Your task to perform on an android device: turn on airplane mode Image 0: 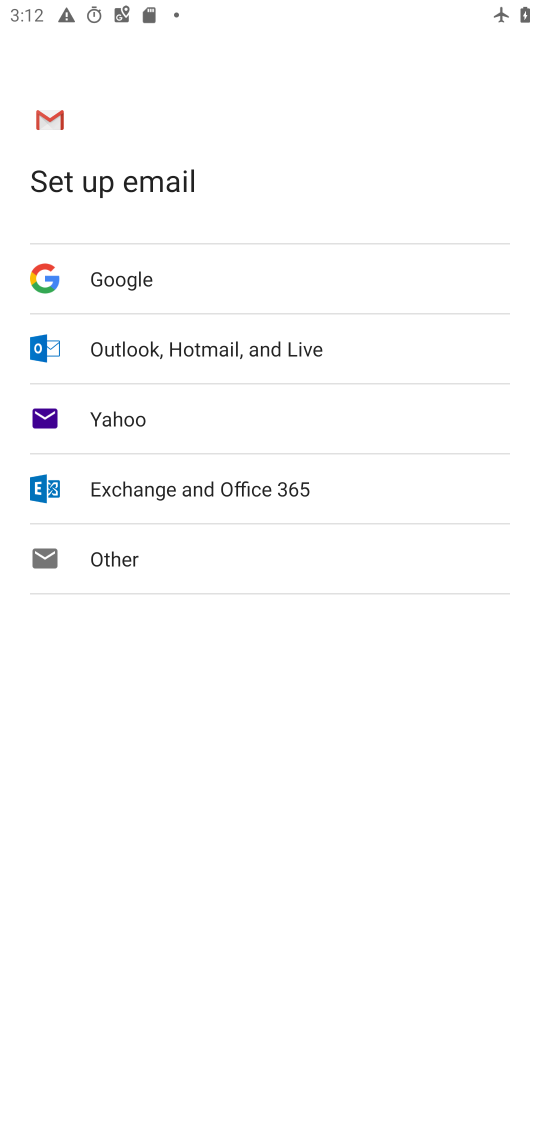
Step 0: press home button
Your task to perform on an android device: turn on airplane mode Image 1: 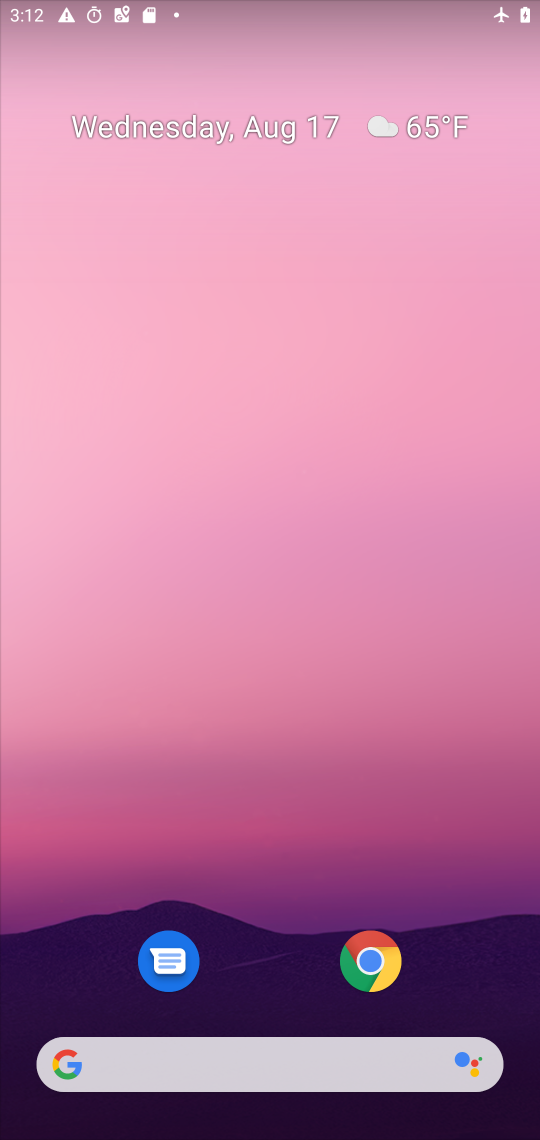
Step 1: click (530, 62)
Your task to perform on an android device: turn on airplane mode Image 2: 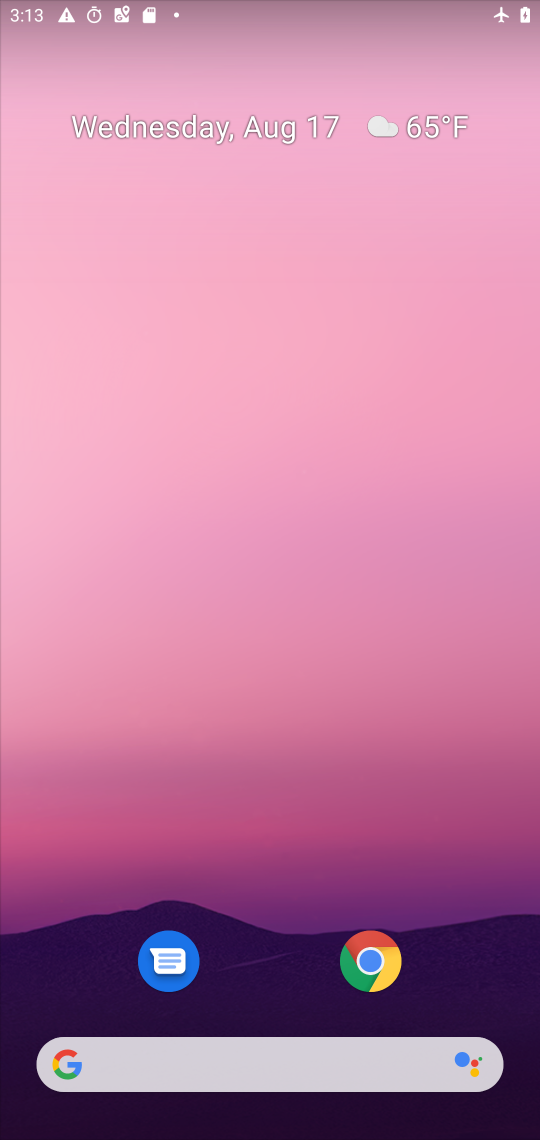
Step 2: drag from (269, 643) to (472, 224)
Your task to perform on an android device: turn on airplane mode Image 3: 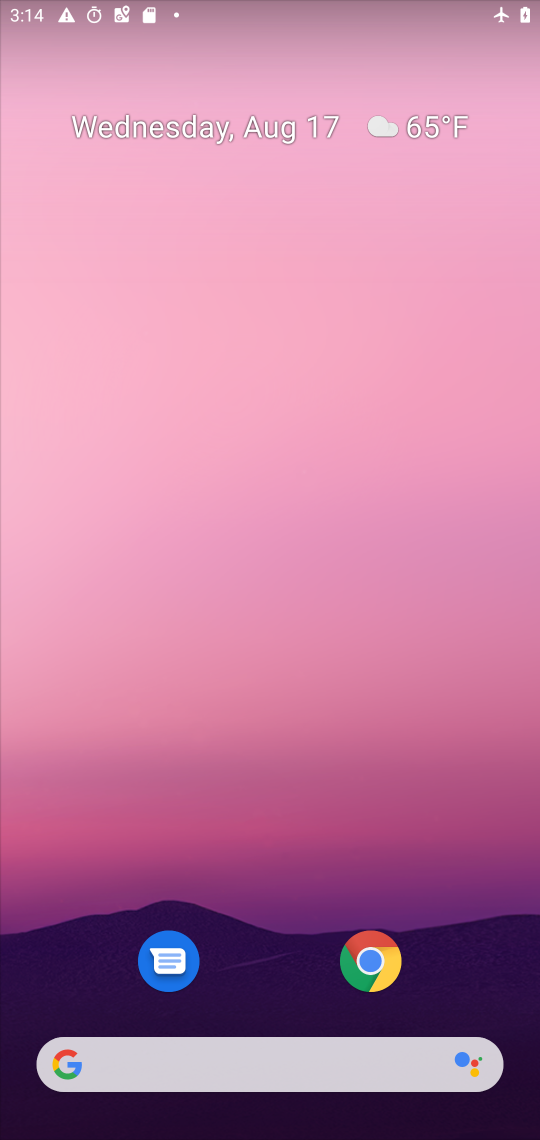
Step 3: drag from (325, 762) to (325, 94)
Your task to perform on an android device: turn on airplane mode Image 4: 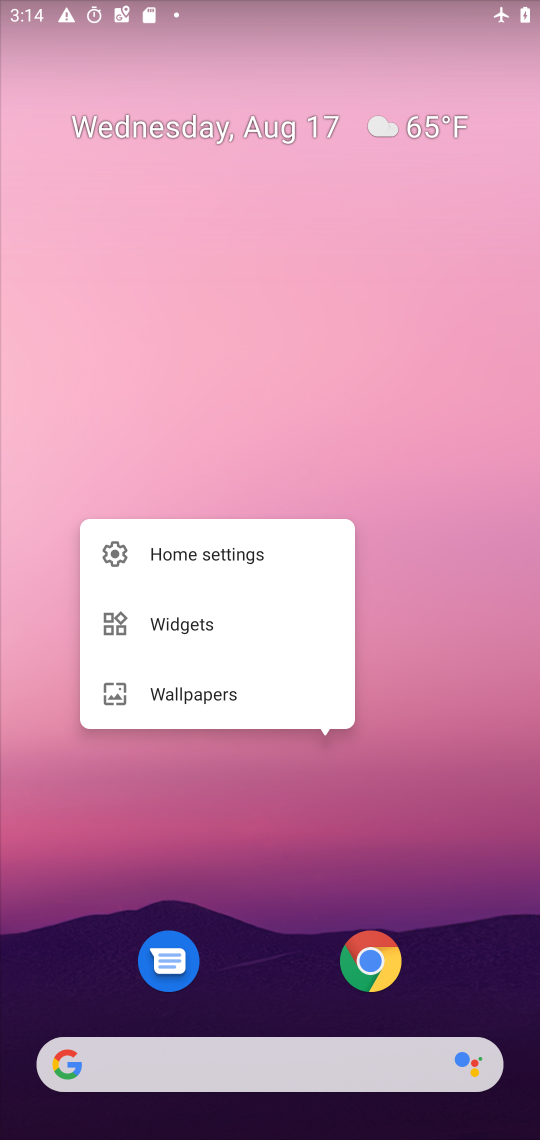
Step 4: drag from (347, 1014) to (349, 55)
Your task to perform on an android device: turn on airplane mode Image 5: 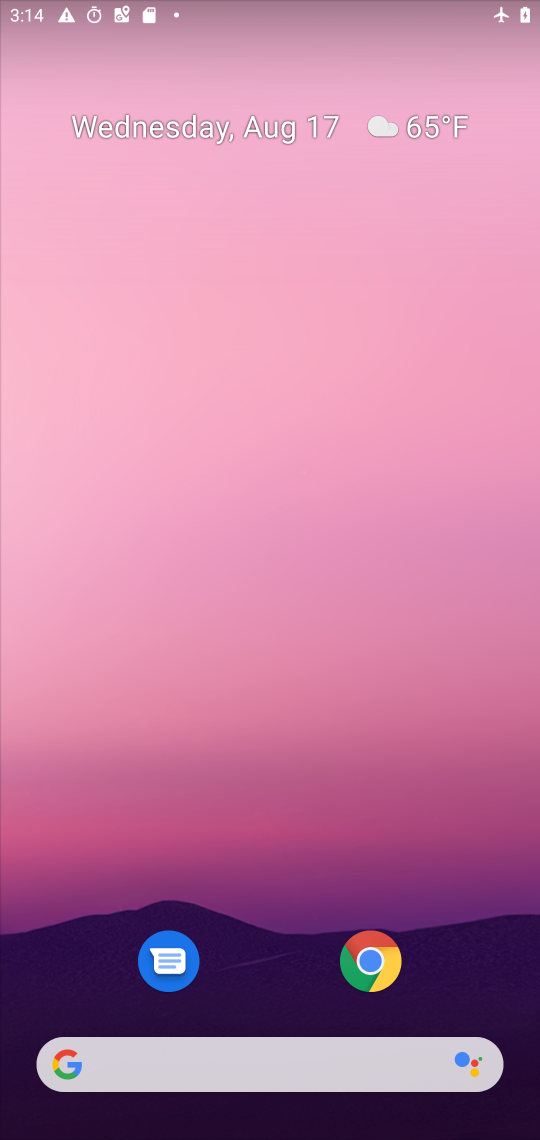
Step 5: drag from (334, 330) to (300, 24)
Your task to perform on an android device: turn on airplane mode Image 6: 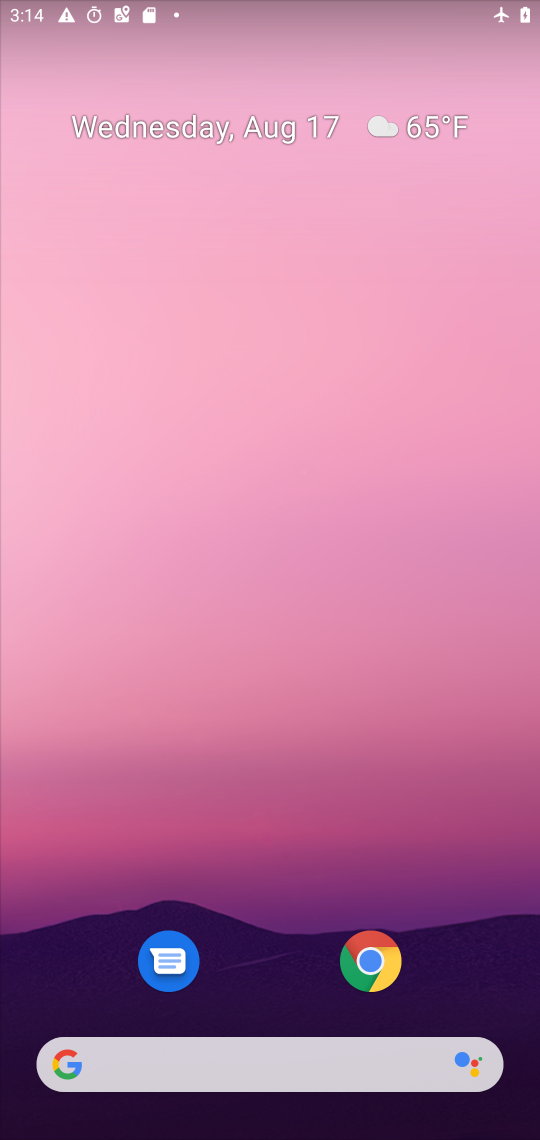
Step 6: drag from (319, 738) to (360, 291)
Your task to perform on an android device: turn on airplane mode Image 7: 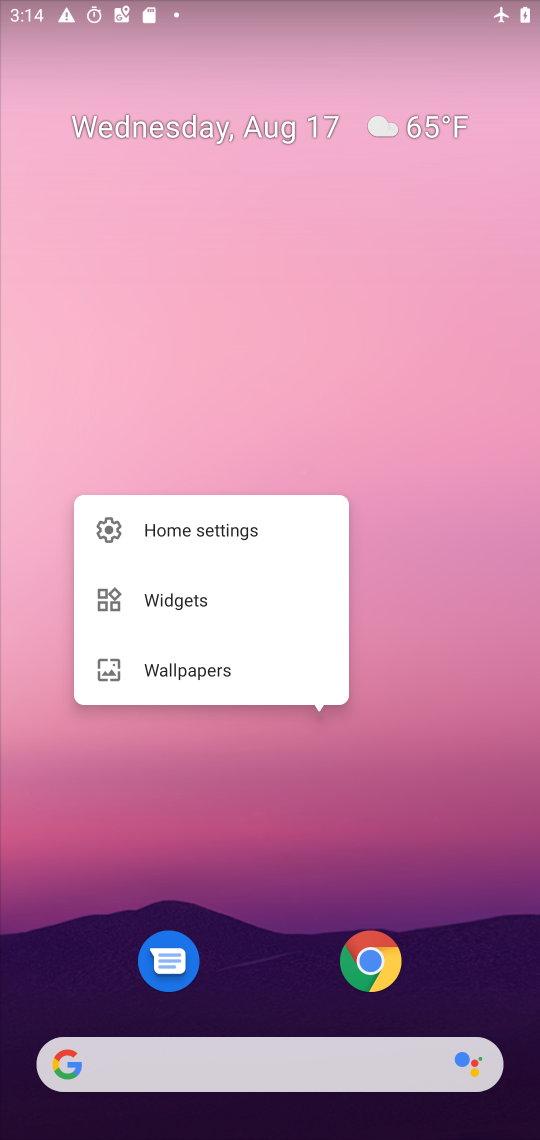
Step 7: click (510, 667)
Your task to perform on an android device: turn on airplane mode Image 8: 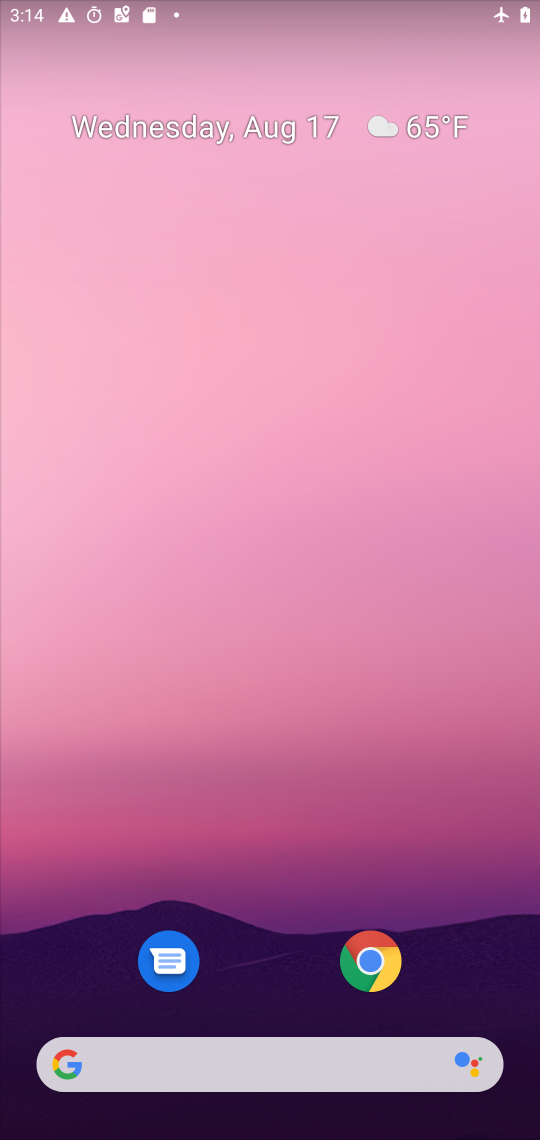
Step 8: drag from (283, 732) to (304, 22)
Your task to perform on an android device: turn on airplane mode Image 9: 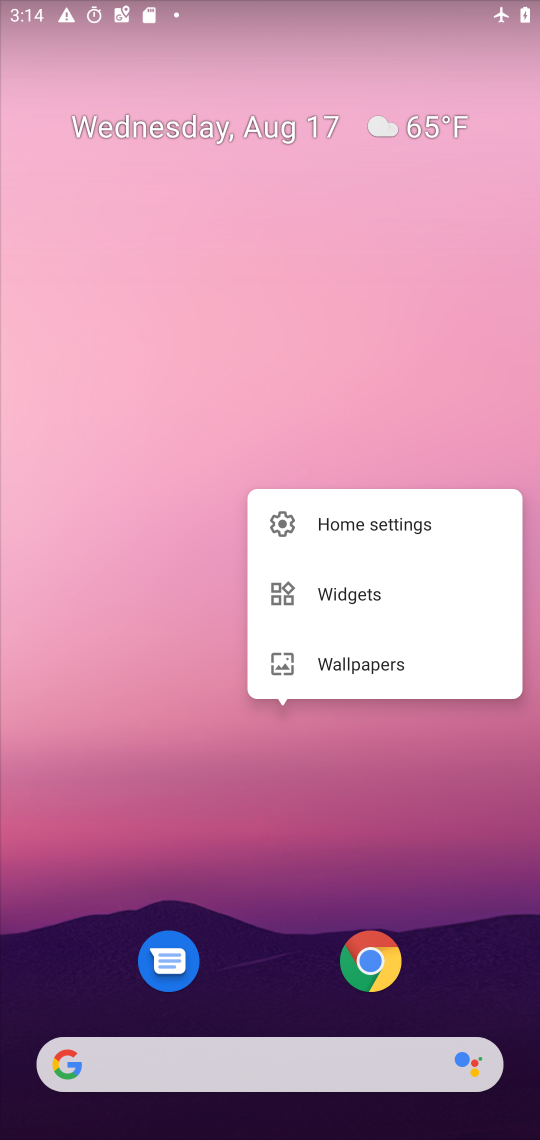
Step 9: click (122, 678)
Your task to perform on an android device: turn on airplane mode Image 10: 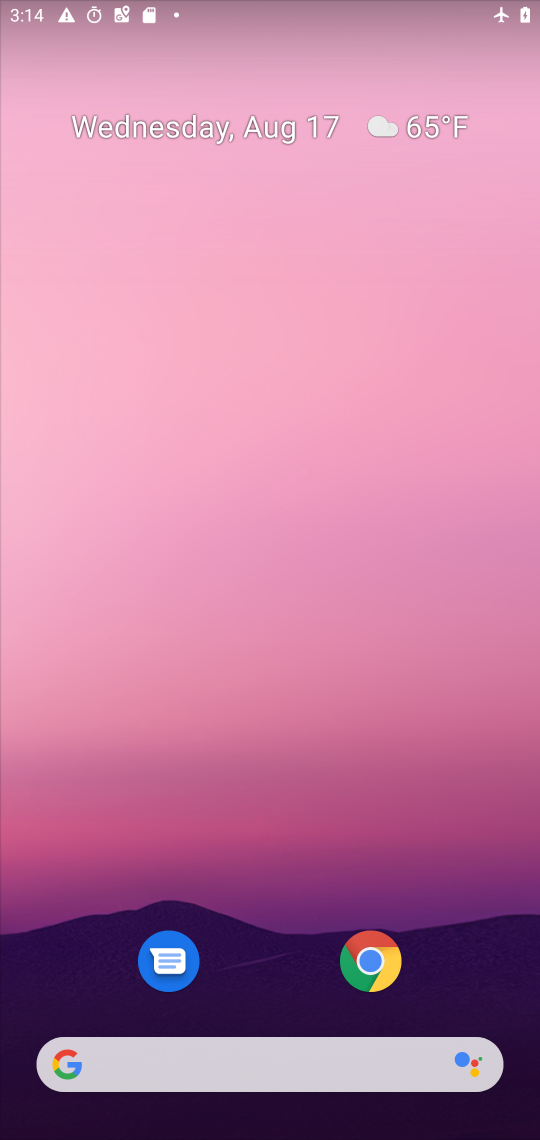
Step 10: drag from (212, 962) to (220, 97)
Your task to perform on an android device: turn on airplane mode Image 11: 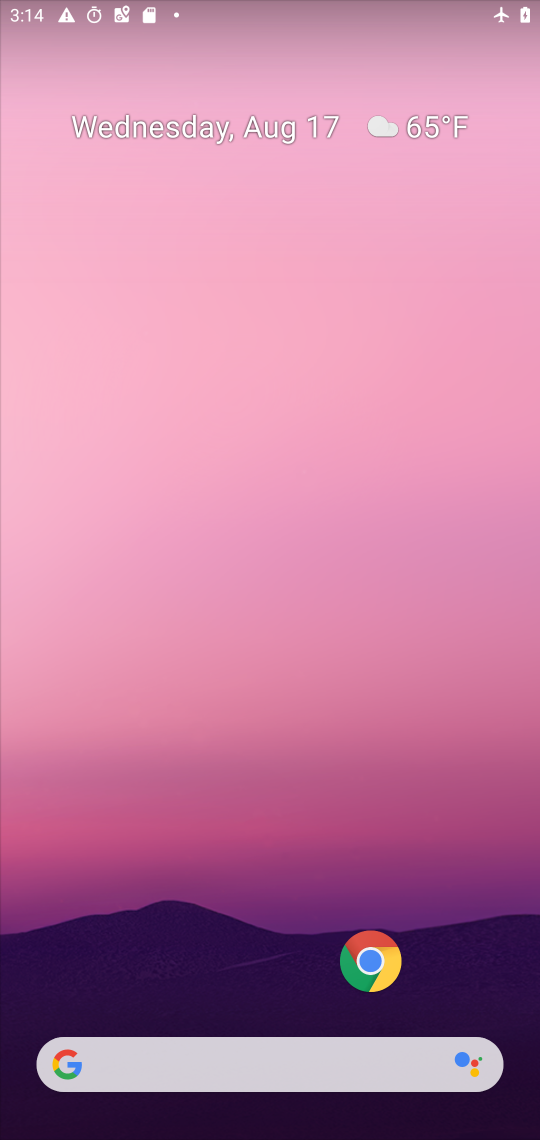
Step 11: drag from (274, 794) to (259, 140)
Your task to perform on an android device: turn on airplane mode Image 12: 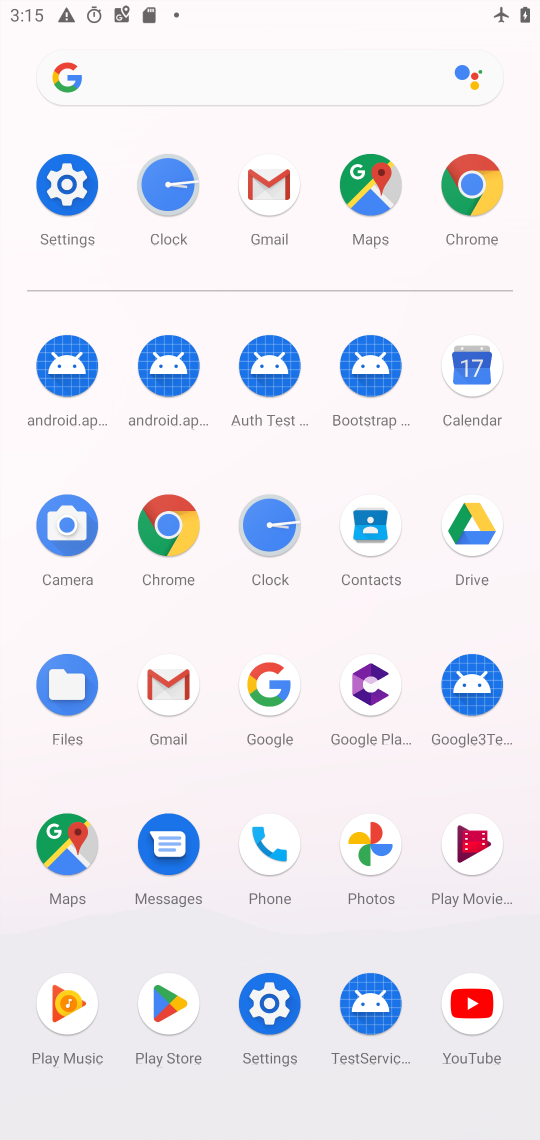
Step 12: click (27, 182)
Your task to perform on an android device: turn on airplane mode Image 13: 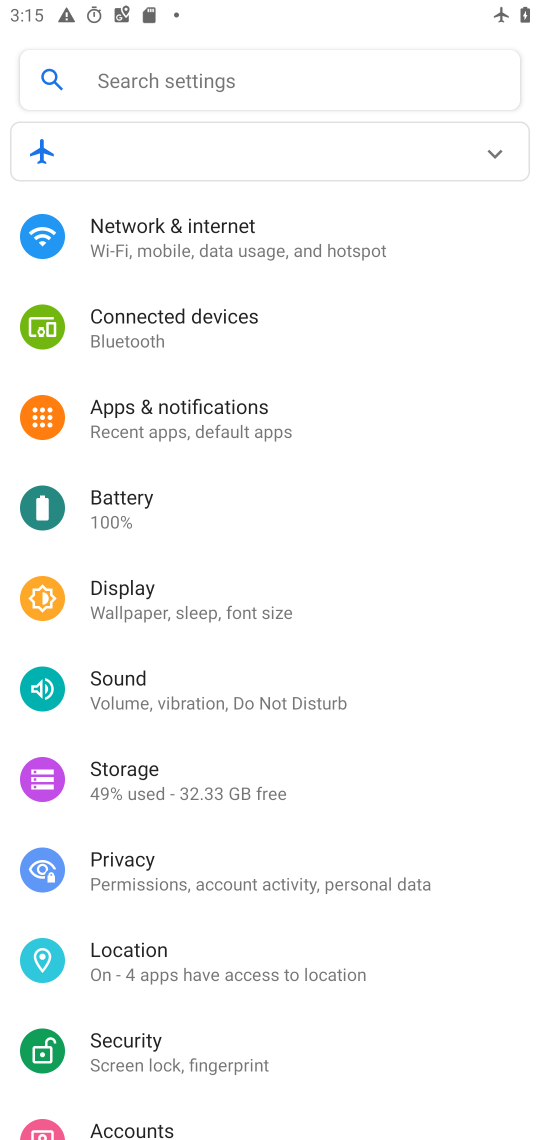
Step 13: click (191, 269)
Your task to perform on an android device: turn on airplane mode Image 14: 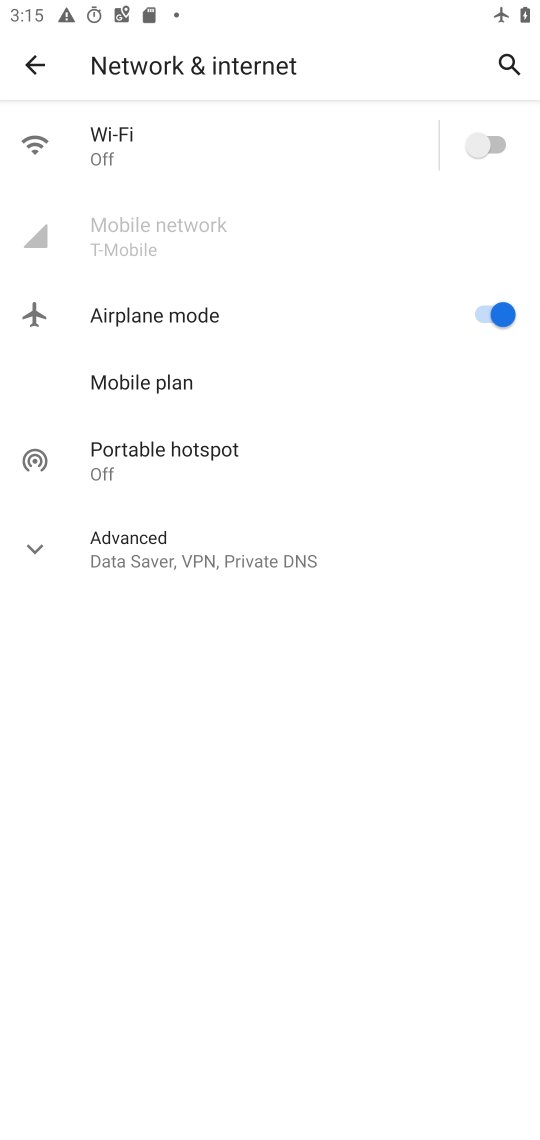
Step 14: task complete